Your task to perform on an android device: see sites visited before in the chrome app Image 0: 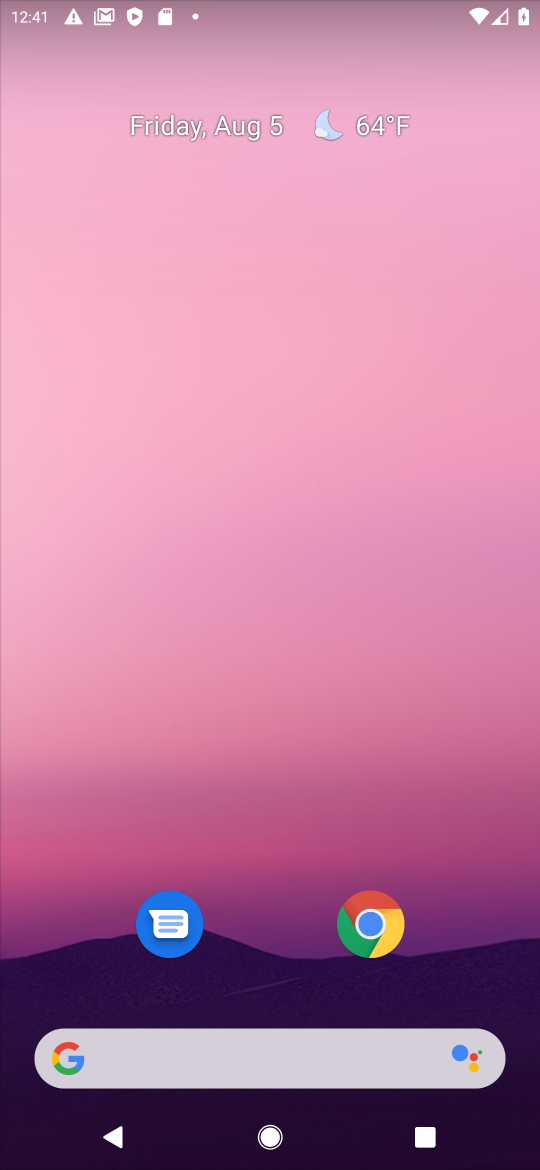
Step 0: click (356, 935)
Your task to perform on an android device: see sites visited before in the chrome app Image 1: 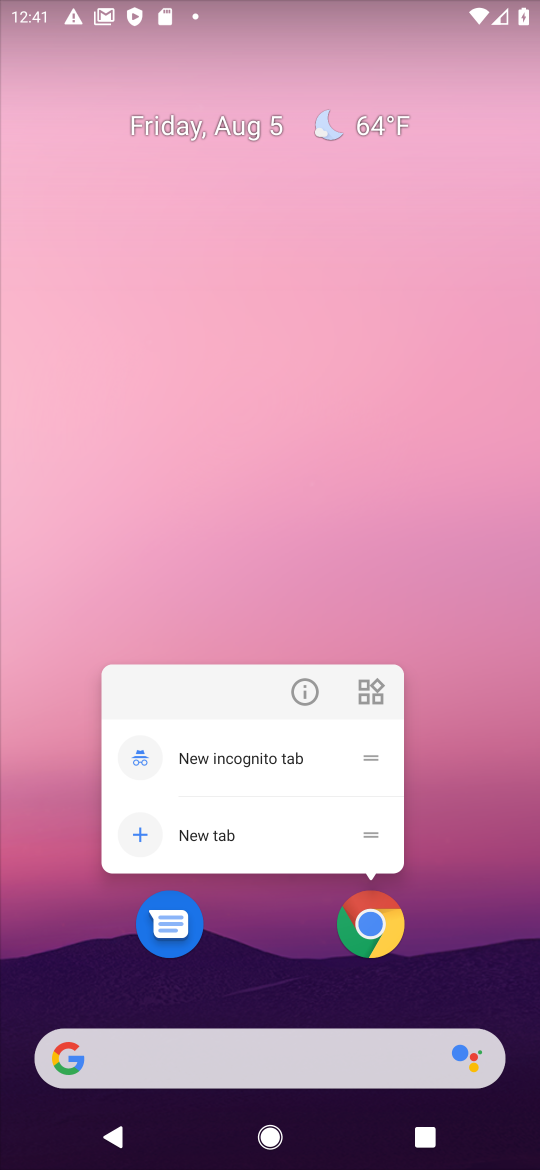
Step 1: drag from (498, 641) to (465, 163)
Your task to perform on an android device: see sites visited before in the chrome app Image 2: 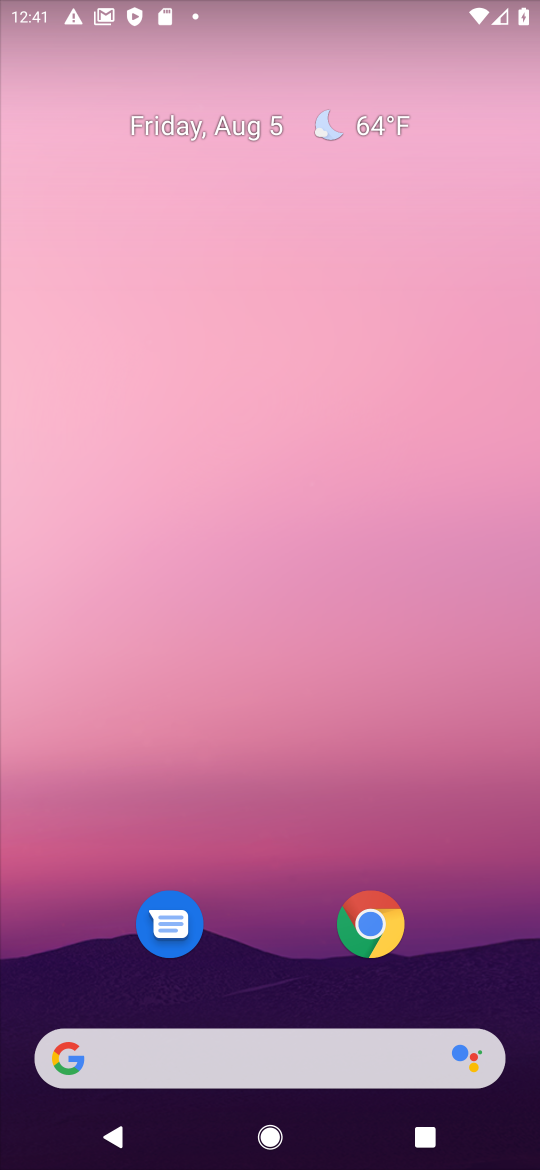
Step 2: drag from (262, 1007) to (255, 191)
Your task to perform on an android device: see sites visited before in the chrome app Image 3: 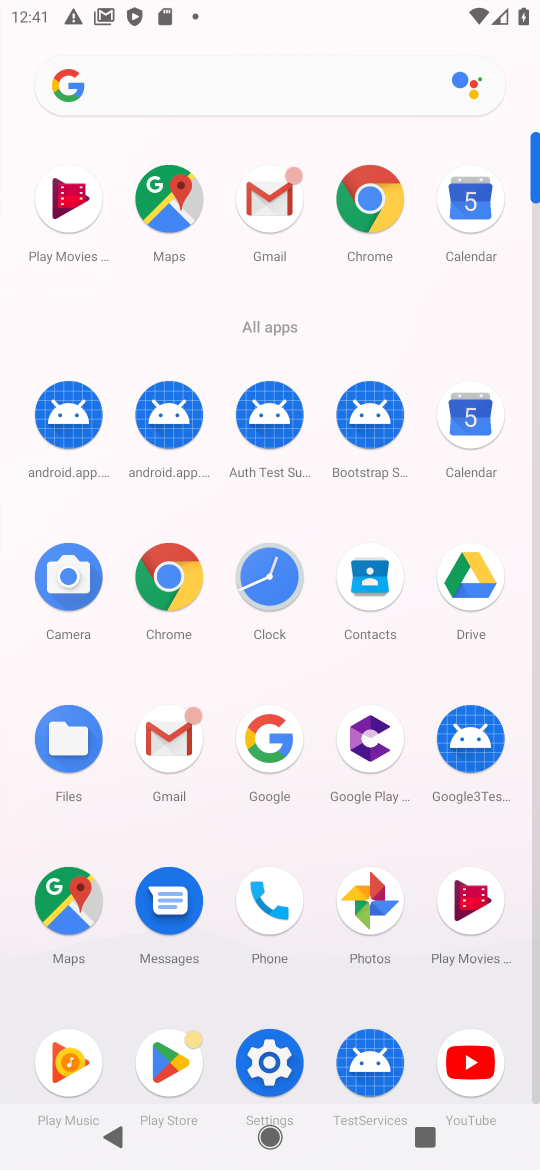
Step 3: click (374, 201)
Your task to perform on an android device: see sites visited before in the chrome app Image 4: 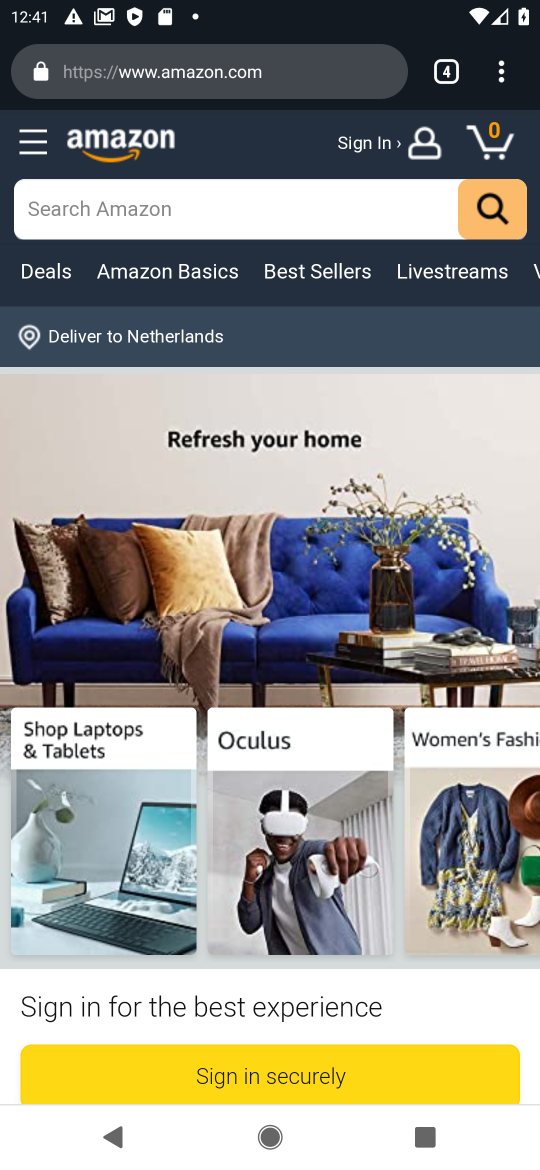
Step 4: task complete